Your task to perform on an android device: Open privacy settings Image 0: 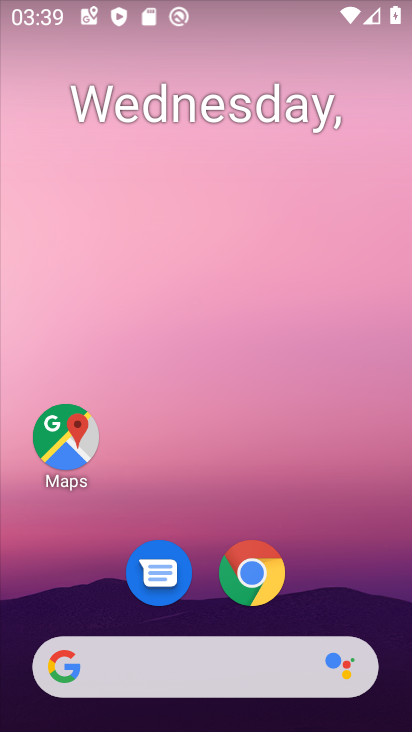
Step 0: drag from (291, 376) to (286, 131)
Your task to perform on an android device: Open privacy settings Image 1: 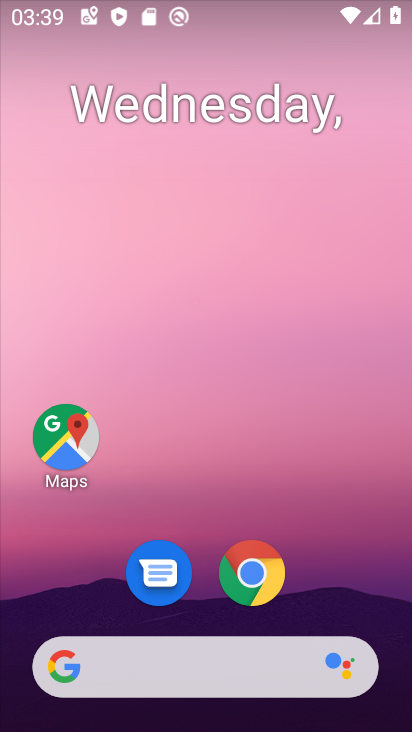
Step 1: drag from (343, 568) to (290, 44)
Your task to perform on an android device: Open privacy settings Image 2: 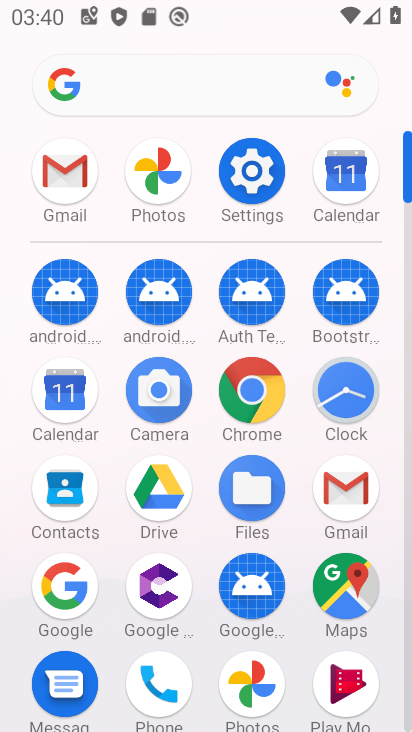
Step 2: click (253, 168)
Your task to perform on an android device: Open privacy settings Image 3: 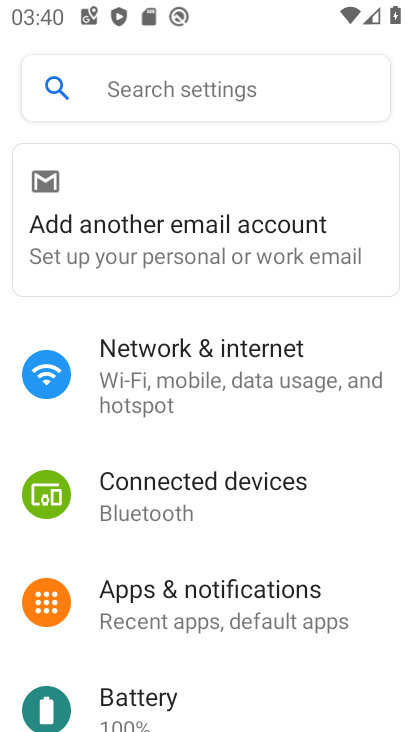
Step 3: drag from (241, 422) to (204, 161)
Your task to perform on an android device: Open privacy settings Image 4: 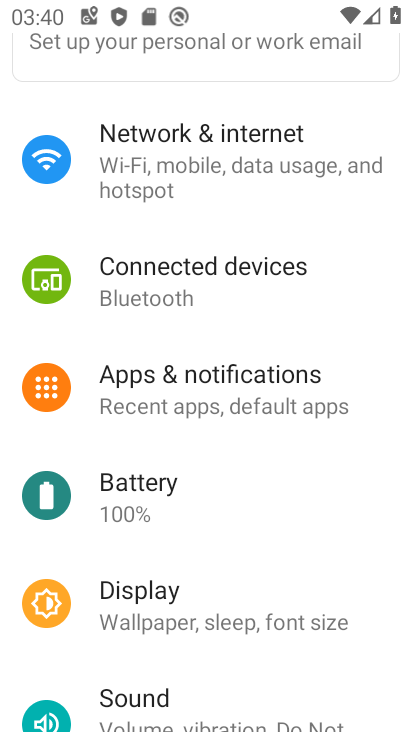
Step 4: drag from (220, 470) to (204, 215)
Your task to perform on an android device: Open privacy settings Image 5: 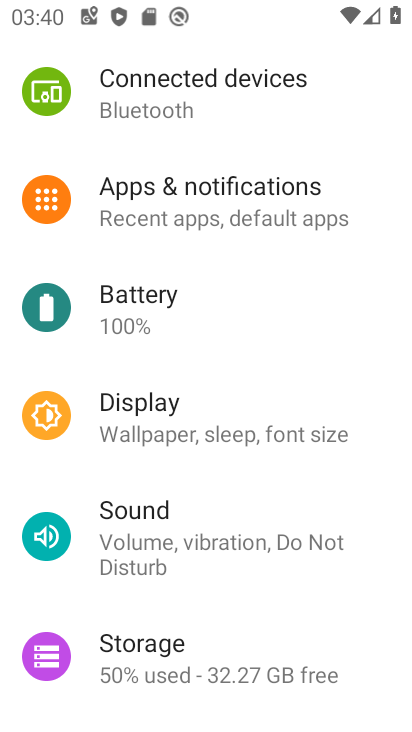
Step 5: drag from (219, 495) to (211, 235)
Your task to perform on an android device: Open privacy settings Image 6: 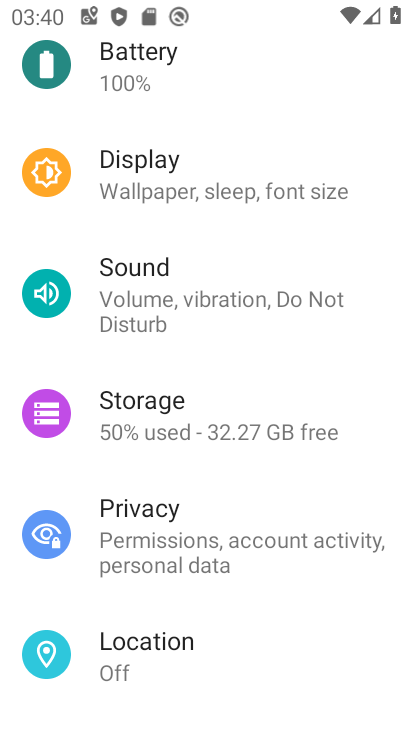
Step 6: drag from (198, 478) to (216, 248)
Your task to perform on an android device: Open privacy settings Image 7: 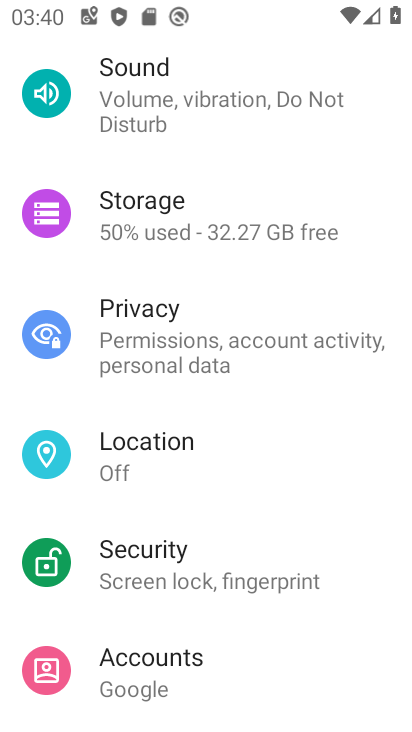
Step 7: drag from (191, 525) to (222, 274)
Your task to perform on an android device: Open privacy settings Image 8: 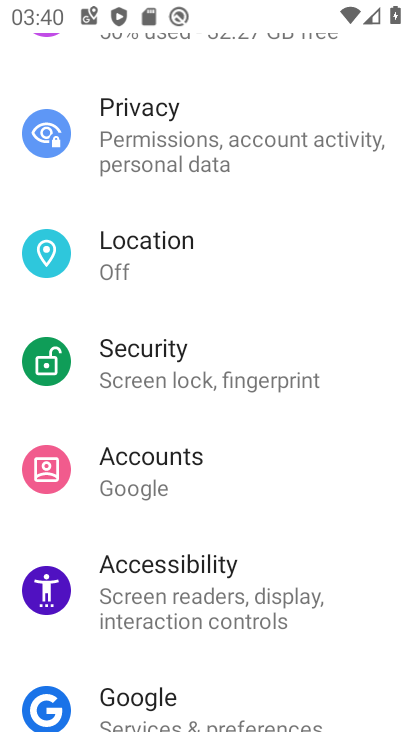
Step 8: drag from (206, 510) to (232, 286)
Your task to perform on an android device: Open privacy settings Image 9: 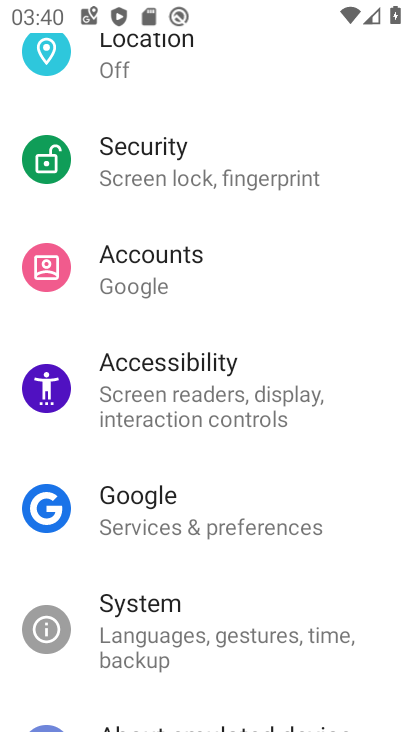
Step 9: drag from (229, 279) to (280, 547)
Your task to perform on an android device: Open privacy settings Image 10: 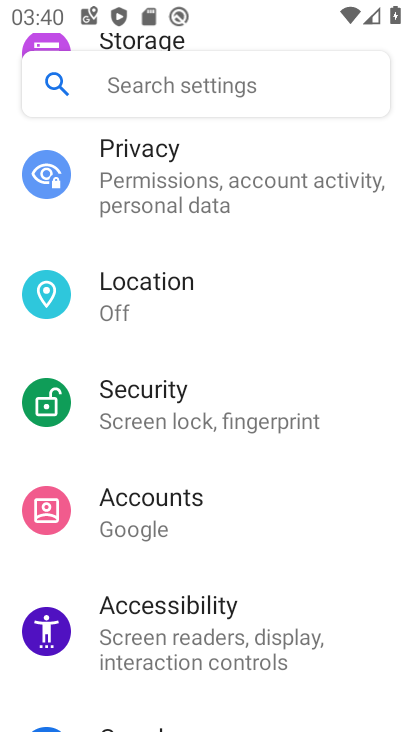
Step 10: click (163, 154)
Your task to perform on an android device: Open privacy settings Image 11: 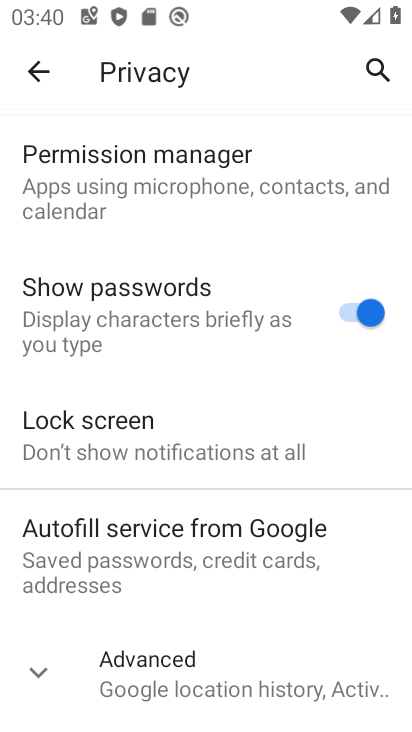
Step 11: task complete